Your task to perform on an android device: check the backup settings in the google photos Image 0: 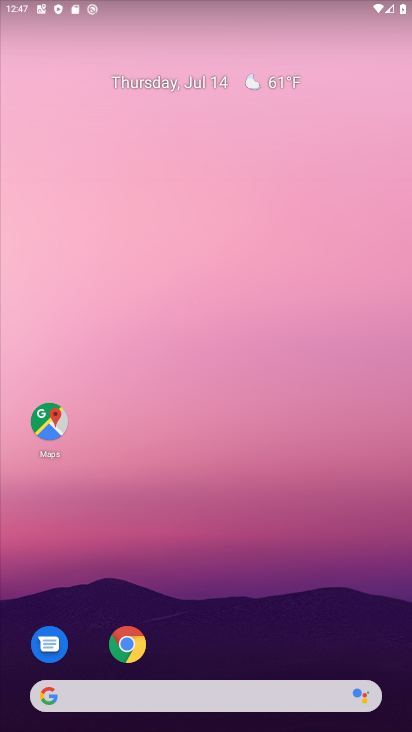
Step 0: drag from (313, 661) to (299, 80)
Your task to perform on an android device: check the backup settings in the google photos Image 1: 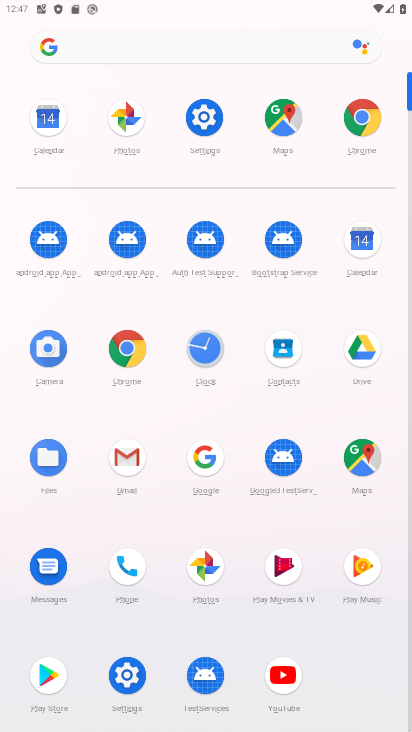
Step 1: click (220, 557)
Your task to perform on an android device: check the backup settings in the google photos Image 2: 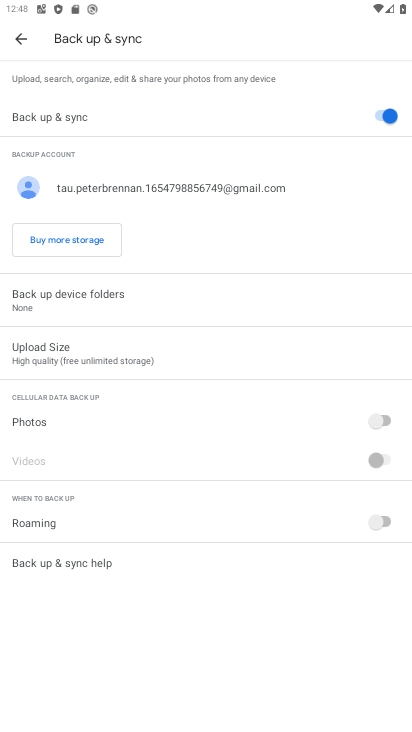
Step 2: task complete